Your task to perform on an android device: Set the phone to "Do not disturb". Image 0: 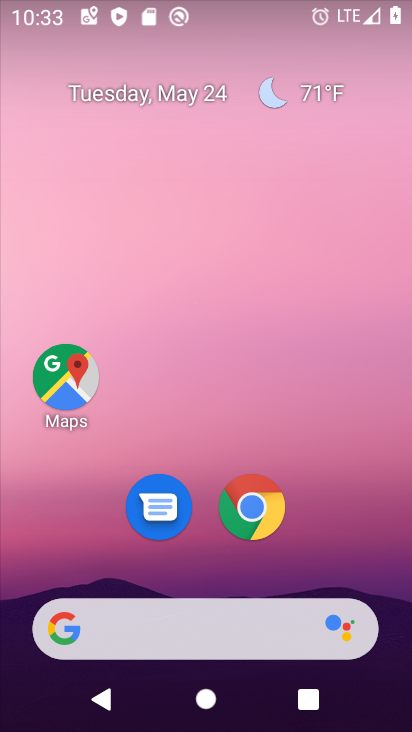
Step 0: drag from (237, 722) to (207, 209)
Your task to perform on an android device: Set the phone to "Do not disturb". Image 1: 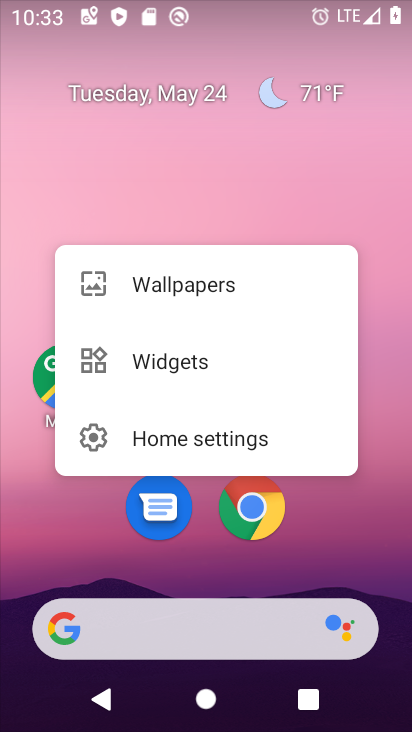
Step 1: click (248, 193)
Your task to perform on an android device: Set the phone to "Do not disturb". Image 2: 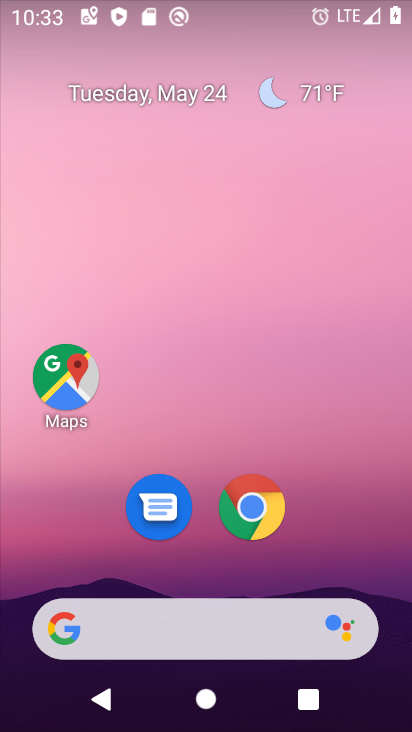
Step 2: drag from (232, 721) to (201, 196)
Your task to perform on an android device: Set the phone to "Do not disturb". Image 3: 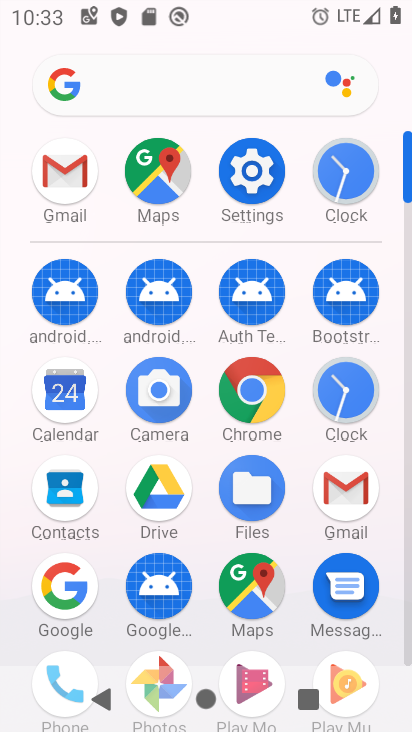
Step 3: click (239, 172)
Your task to perform on an android device: Set the phone to "Do not disturb". Image 4: 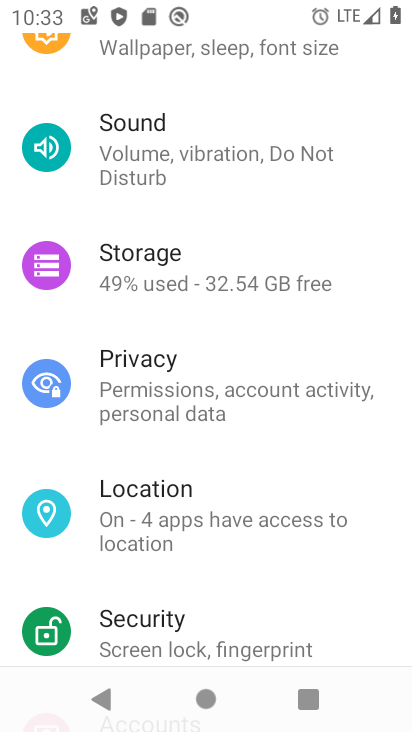
Step 4: click (145, 154)
Your task to perform on an android device: Set the phone to "Do not disturb". Image 5: 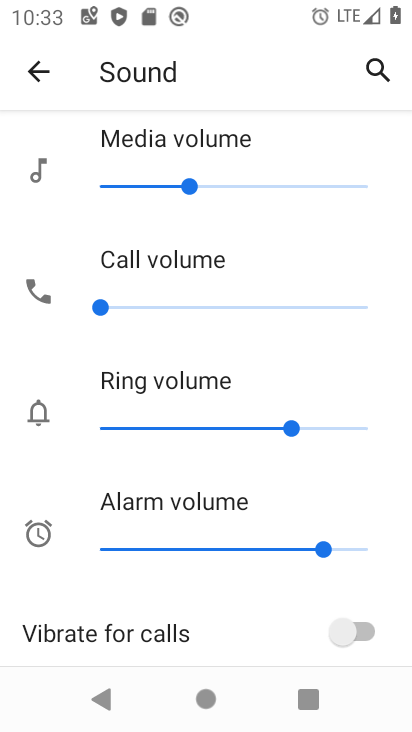
Step 5: drag from (218, 631) to (260, 233)
Your task to perform on an android device: Set the phone to "Do not disturb". Image 6: 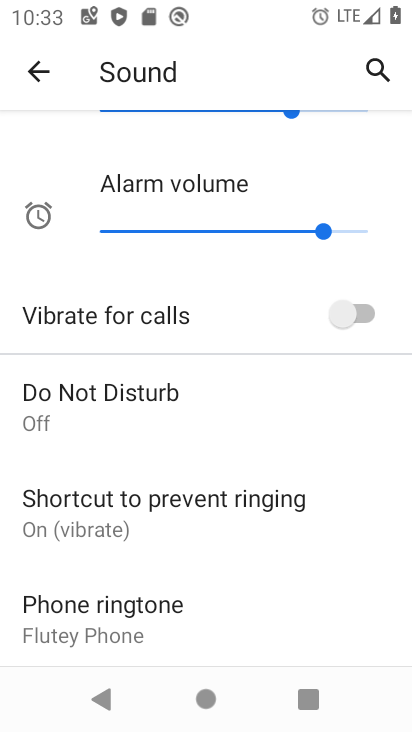
Step 6: click (56, 403)
Your task to perform on an android device: Set the phone to "Do not disturb". Image 7: 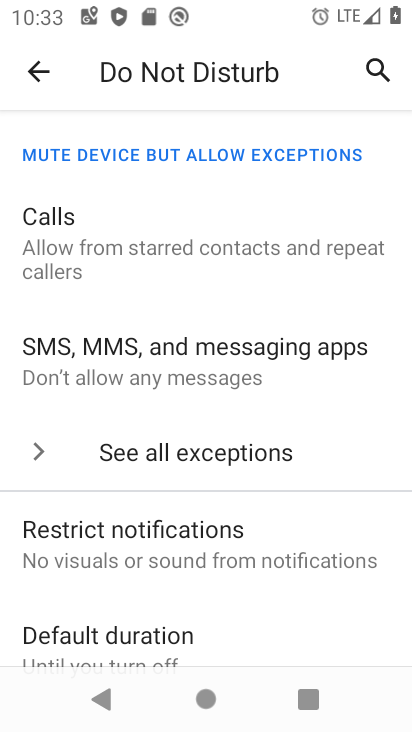
Step 7: drag from (177, 586) to (191, 299)
Your task to perform on an android device: Set the phone to "Do not disturb". Image 8: 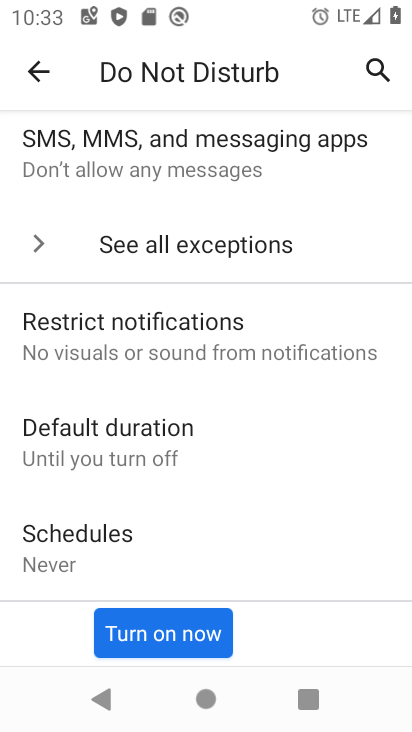
Step 8: click (170, 639)
Your task to perform on an android device: Set the phone to "Do not disturb". Image 9: 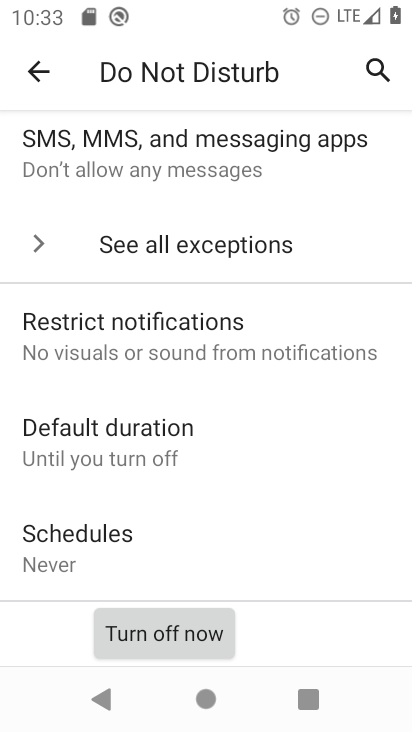
Step 9: task complete